Your task to perform on an android device: open app "File Manager" (install if not already installed) Image 0: 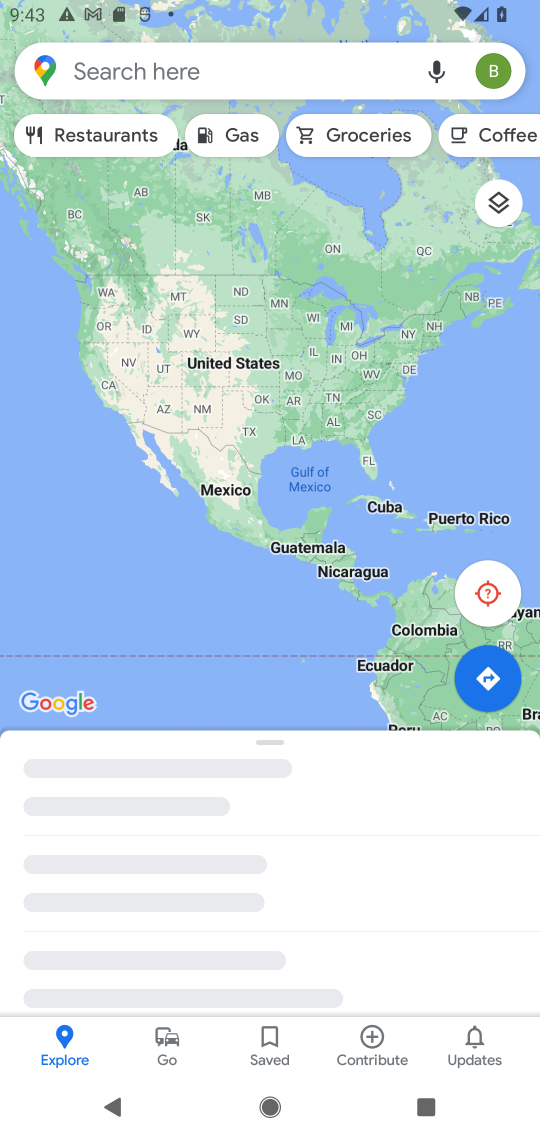
Step 0: press home button
Your task to perform on an android device: open app "File Manager" (install if not already installed) Image 1: 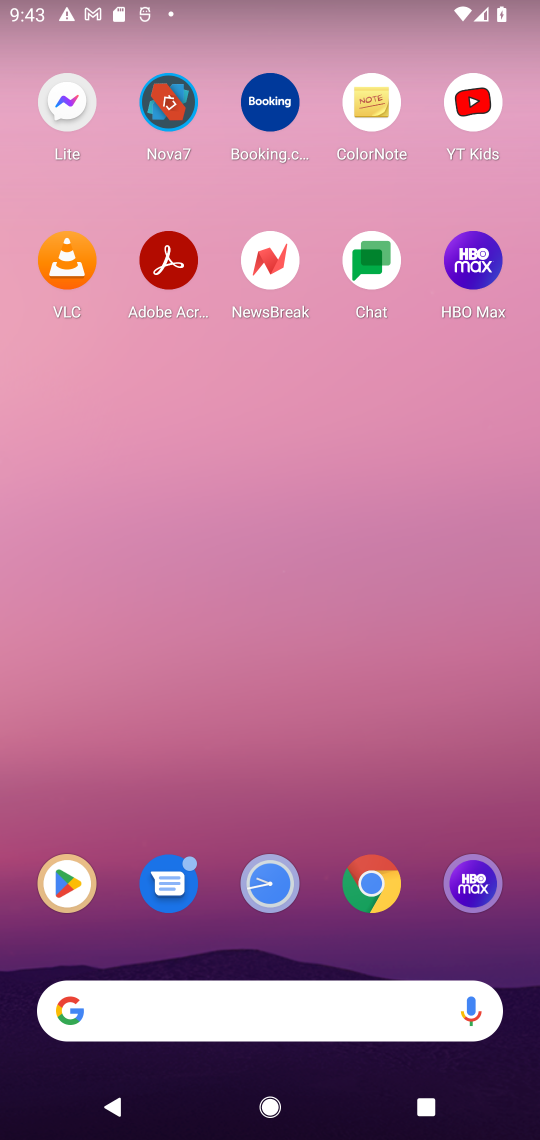
Step 1: click (76, 889)
Your task to perform on an android device: open app "File Manager" (install if not already installed) Image 2: 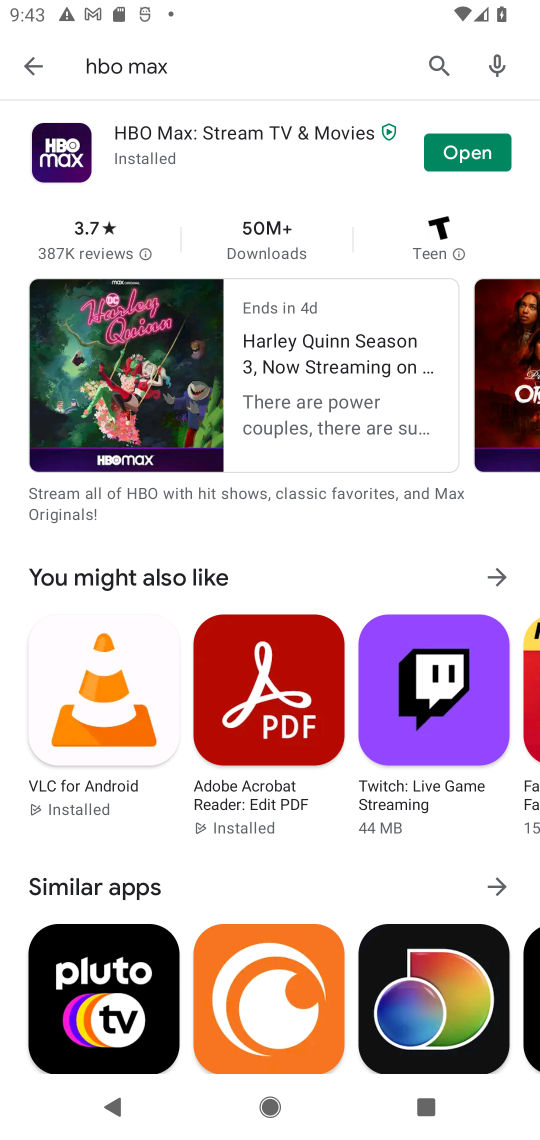
Step 2: click (181, 69)
Your task to perform on an android device: open app "File Manager" (install if not already installed) Image 3: 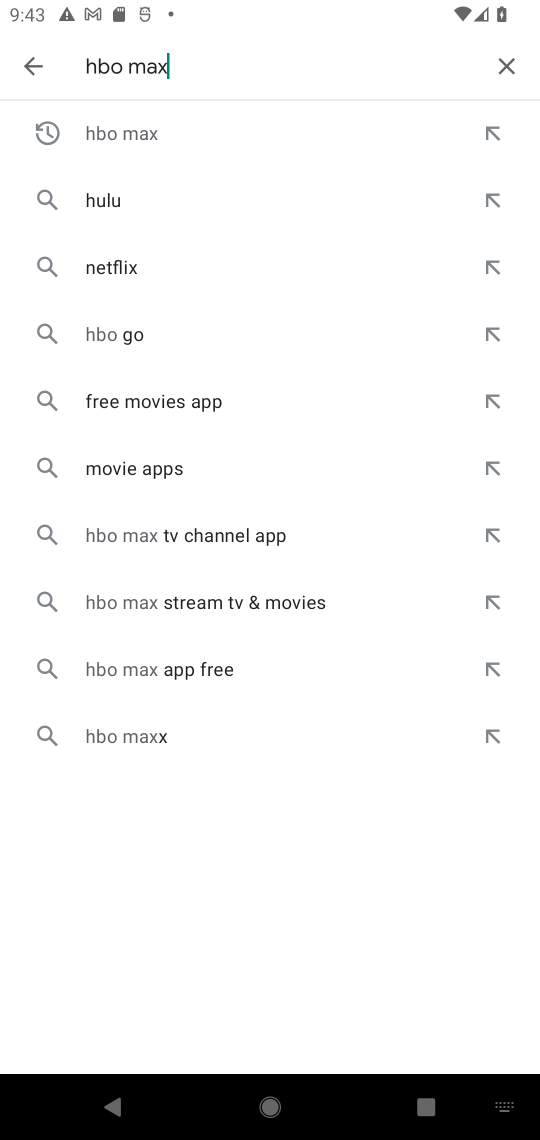
Step 3: click (509, 61)
Your task to perform on an android device: open app "File Manager" (install if not already installed) Image 4: 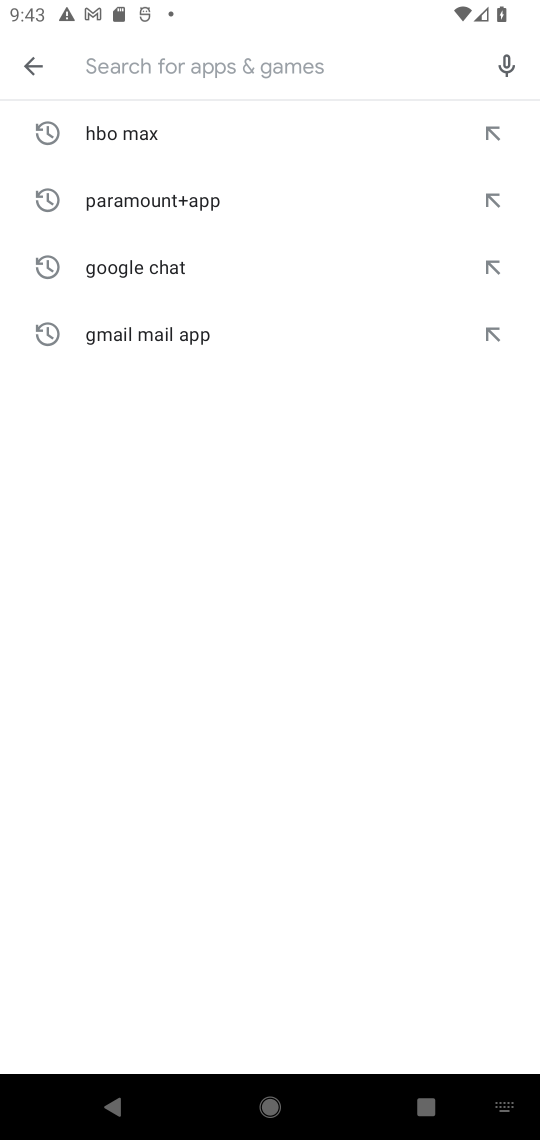
Step 4: type "File manager"
Your task to perform on an android device: open app "File Manager" (install if not already installed) Image 5: 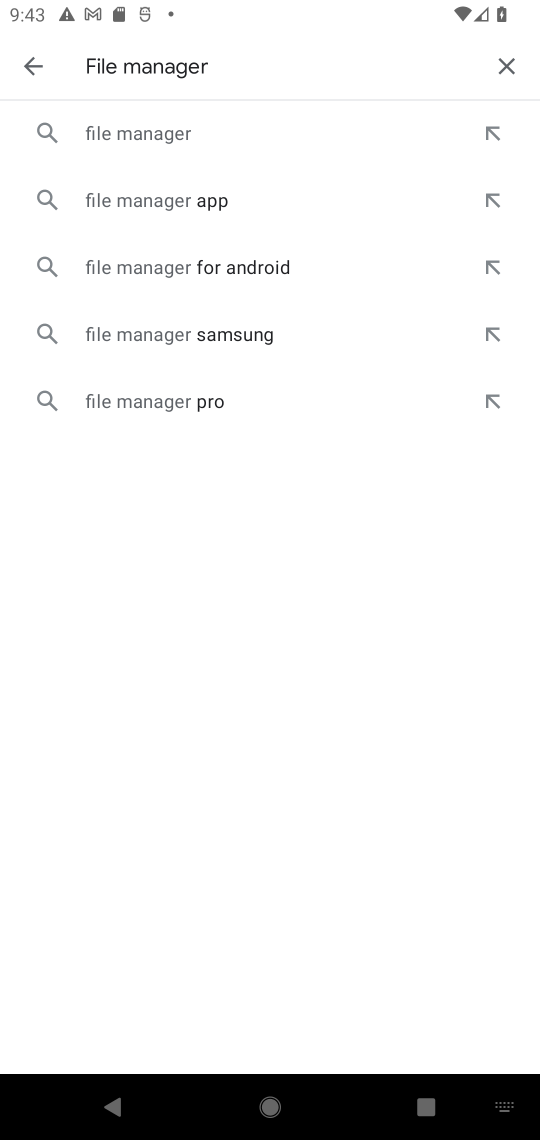
Step 5: click (137, 147)
Your task to perform on an android device: open app "File Manager" (install if not already installed) Image 6: 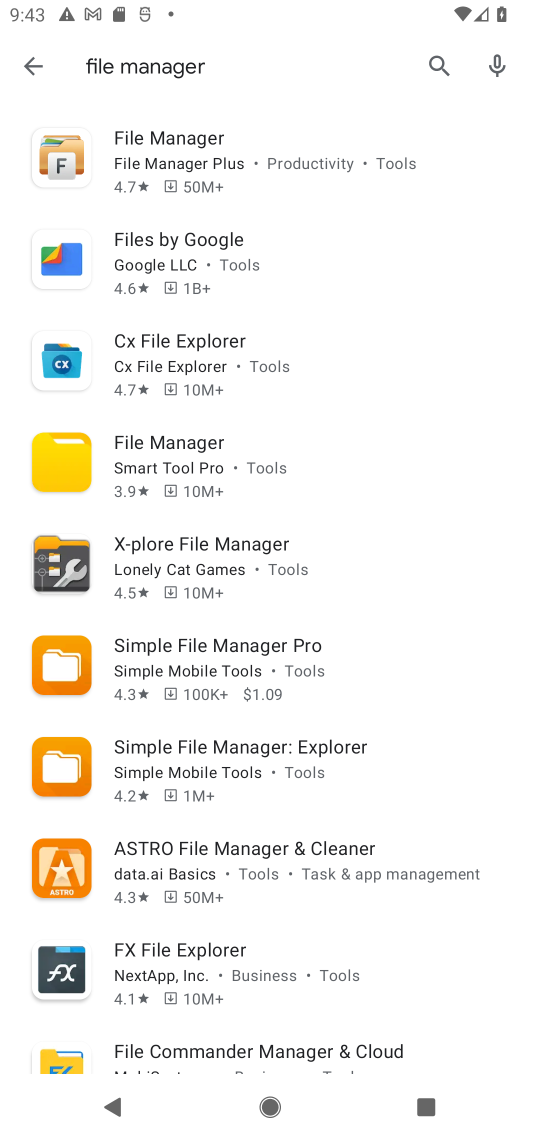
Step 6: click (230, 161)
Your task to perform on an android device: open app "File Manager" (install if not already installed) Image 7: 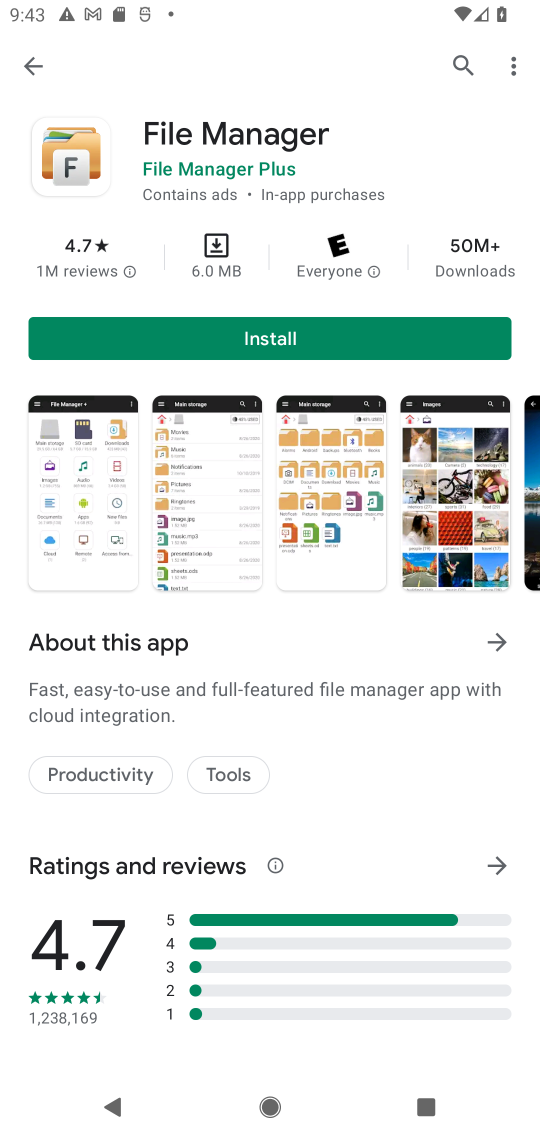
Step 7: click (248, 343)
Your task to perform on an android device: open app "File Manager" (install if not already installed) Image 8: 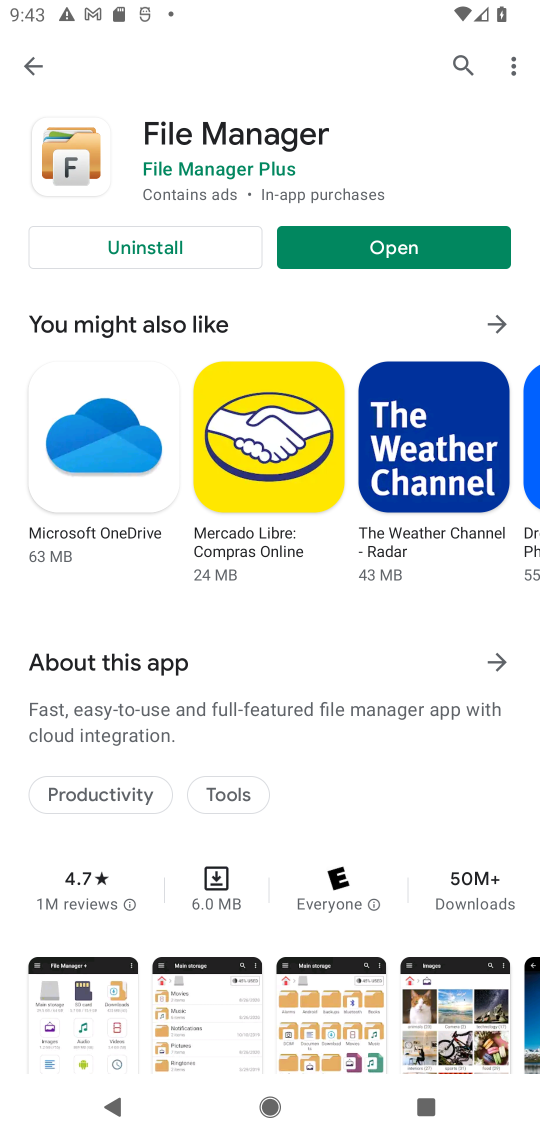
Step 8: click (367, 248)
Your task to perform on an android device: open app "File Manager" (install if not already installed) Image 9: 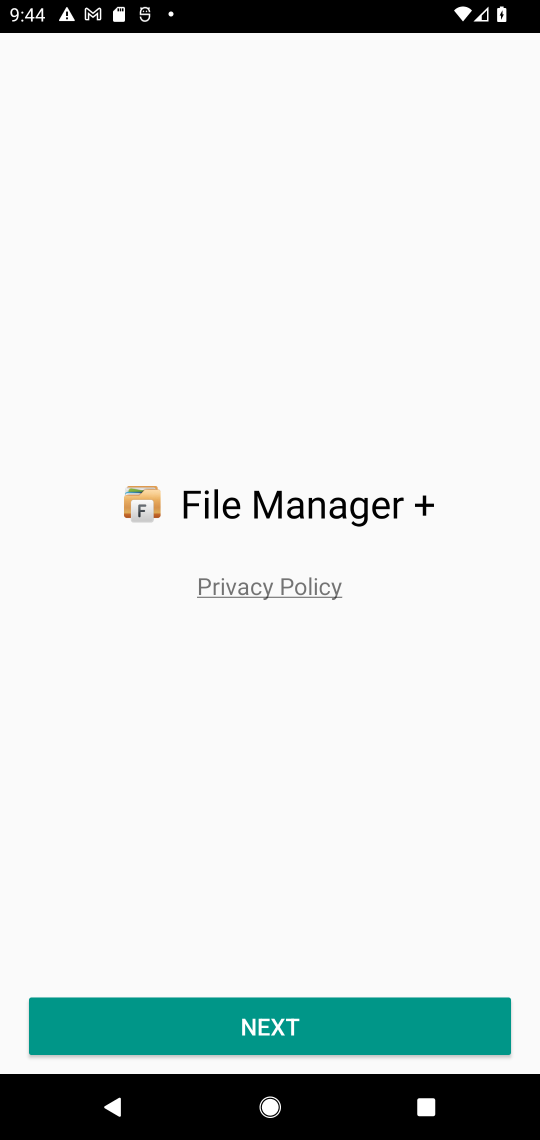
Step 9: click (271, 1027)
Your task to perform on an android device: open app "File Manager" (install if not already installed) Image 10: 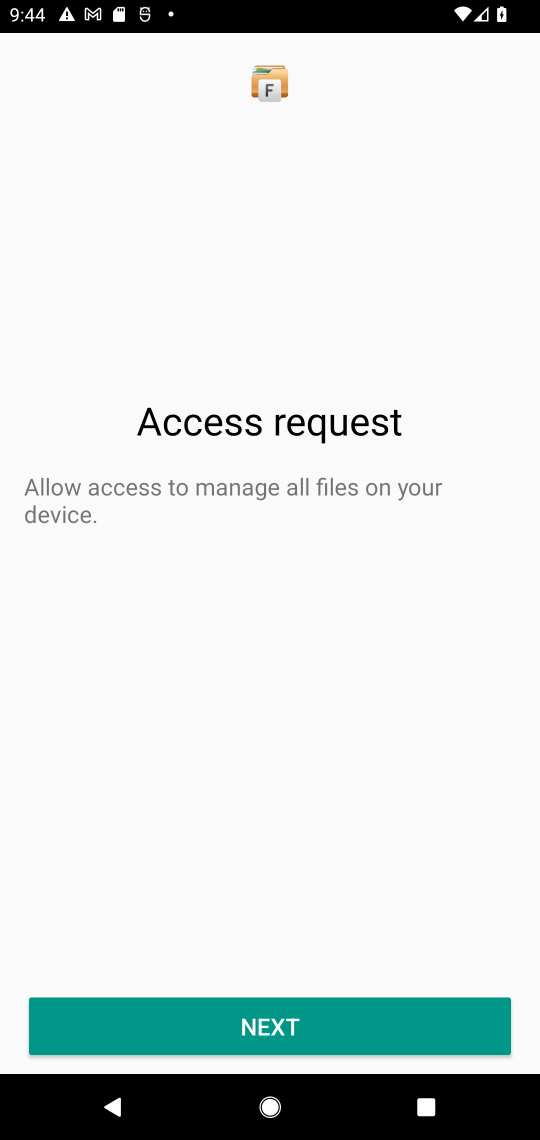
Step 10: click (284, 1023)
Your task to perform on an android device: open app "File Manager" (install if not already installed) Image 11: 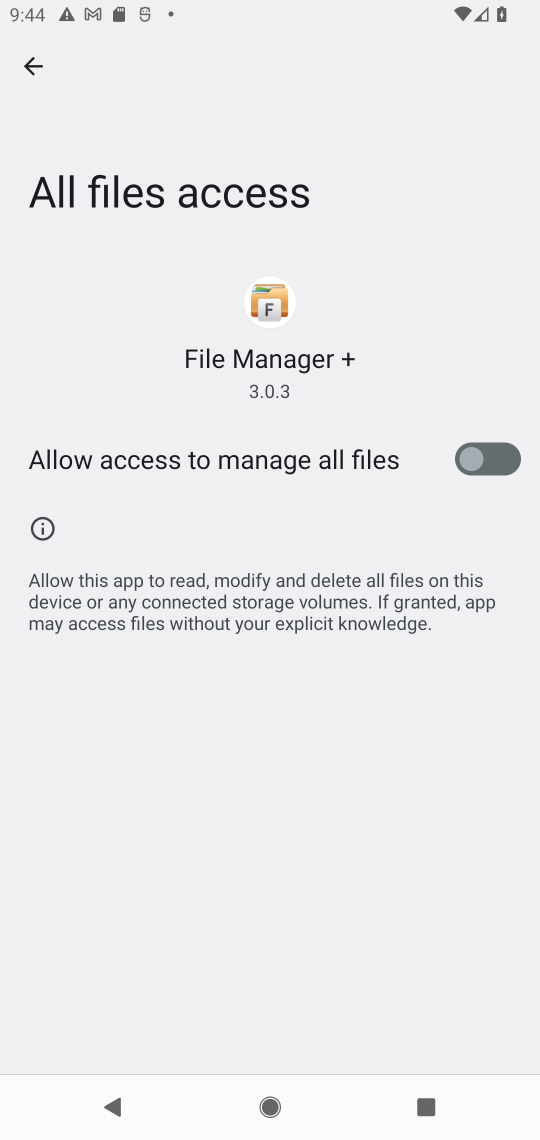
Step 11: click (522, 463)
Your task to perform on an android device: open app "File Manager" (install if not already installed) Image 12: 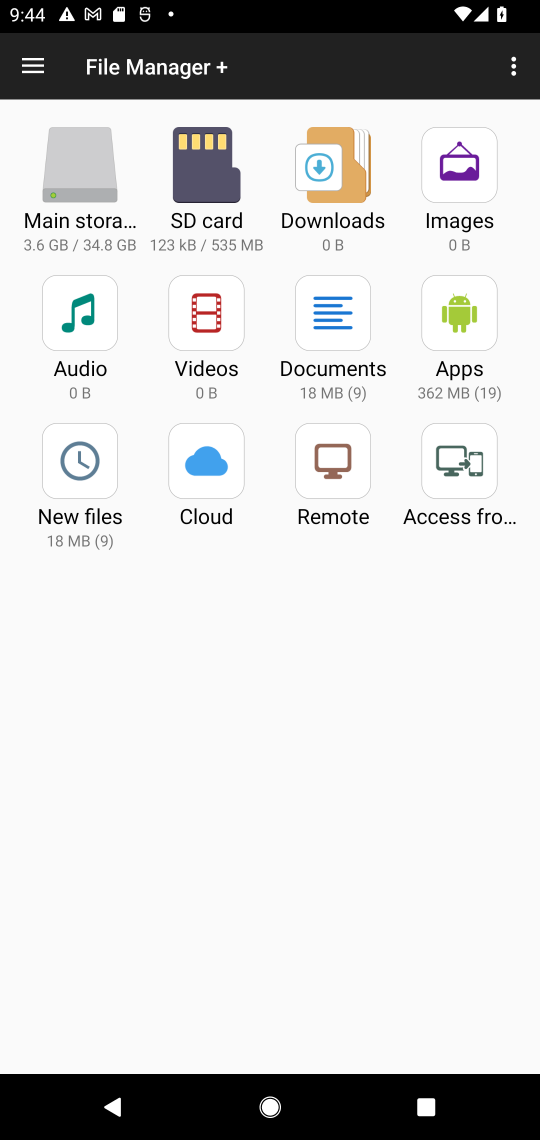
Step 12: task complete